Your task to perform on an android device: turn off airplane mode Image 0: 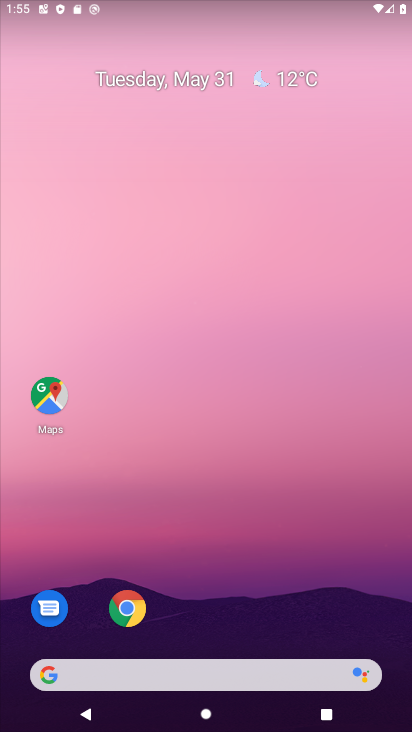
Step 0: drag from (280, 623) to (247, 155)
Your task to perform on an android device: turn off airplane mode Image 1: 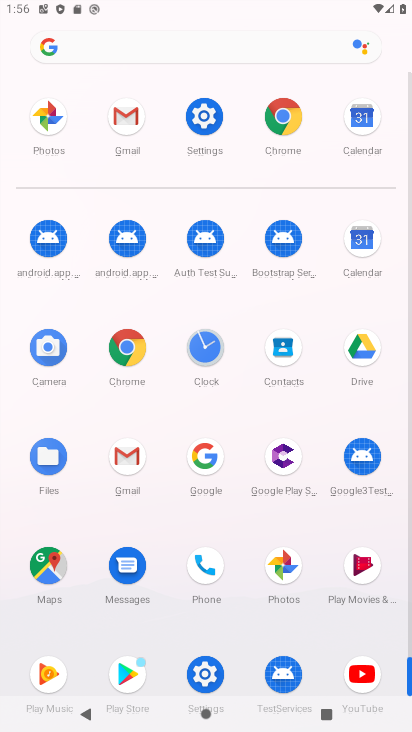
Step 1: click (231, 124)
Your task to perform on an android device: turn off airplane mode Image 2: 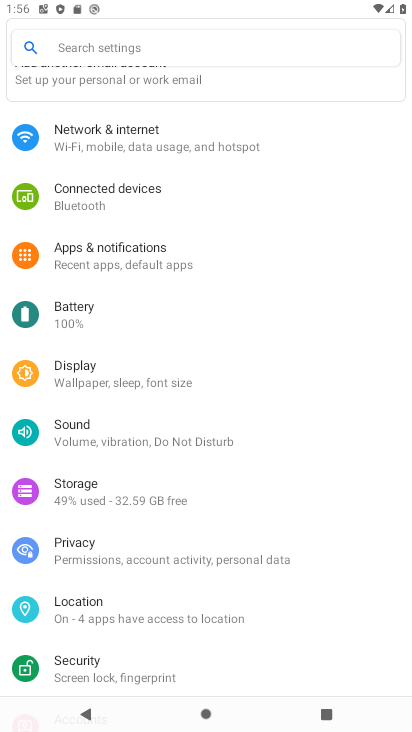
Step 2: click (215, 149)
Your task to perform on an android device: turn off airplane mode Image 3: 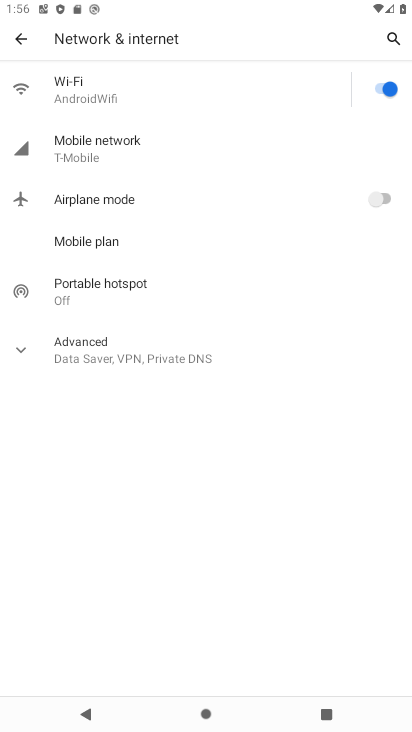
Step 3: task complete